Your task to perform on an android device: Search for Italian restaurants on Maps Image 0: 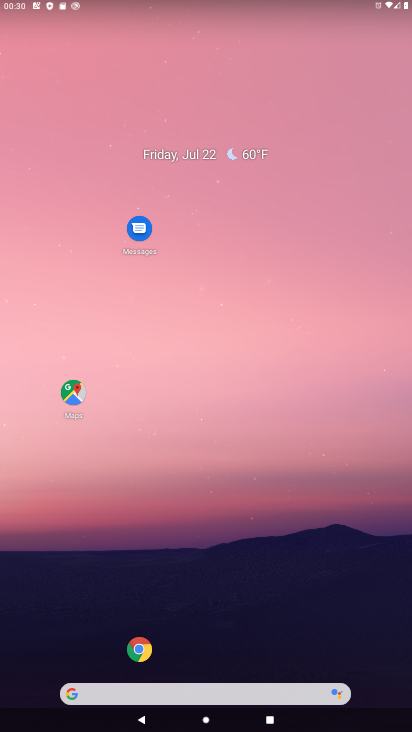
Step 0: click (73, 393)
Your task to perform on an android device: Search for Italian restaurants on Maps Image 1: 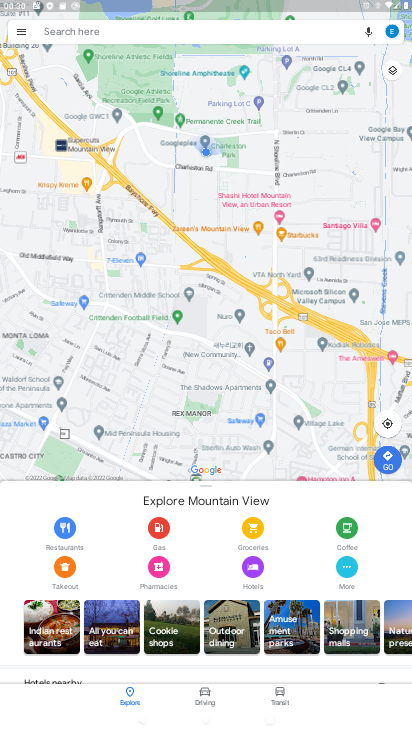
Step 1: click (47, 32)
Your task to perform on an android device: Search for Italian restaurants on Maps Image 2: 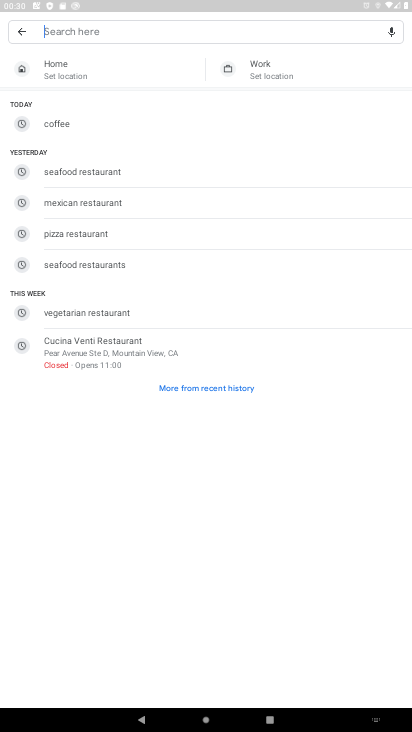
Step 2: type " Italian restaurants"
Your task to perform on an android device: Search for Italian restaurants on Maps Image 3: 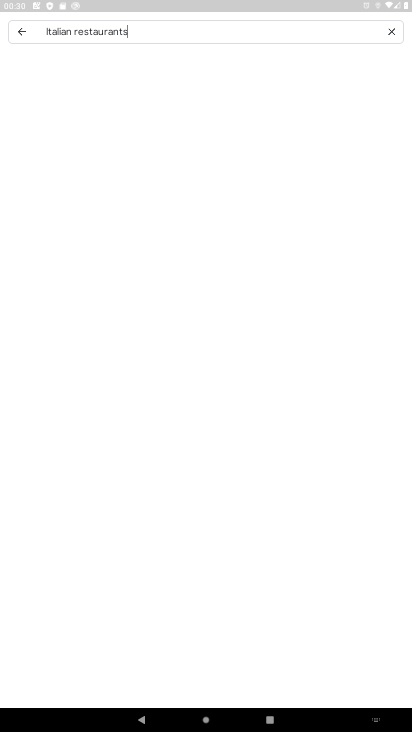
Step 3: type ""
Your task to perform on an android device: Search for Italian restaurants on Maps Image 4: 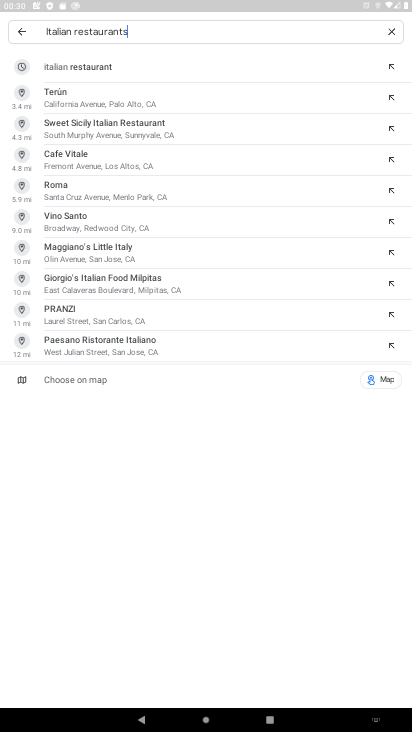
Step 4: click (92, 62)
Your task to perform on an android device: Search for Italian restaurants on Maps Image 5: 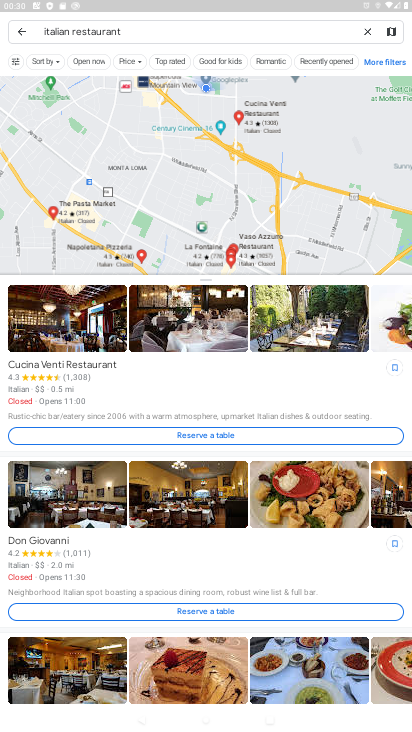
Step 5: task complete